Your task to perform on an android device: Open Google Maps Image 0: 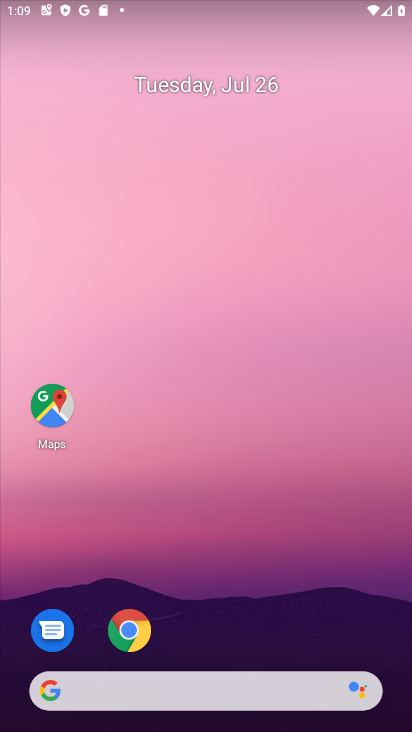
Step 0: drag from (232, 613) to (273, 64)
Your task to perform on an android device: Open Google Maps Image 1: 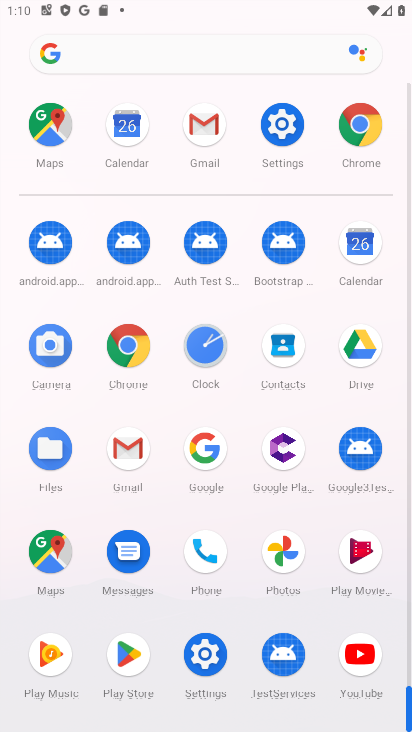
Step 1: click (55, 553)
Your task to perform on an android device: Open Google Maps Image 2: 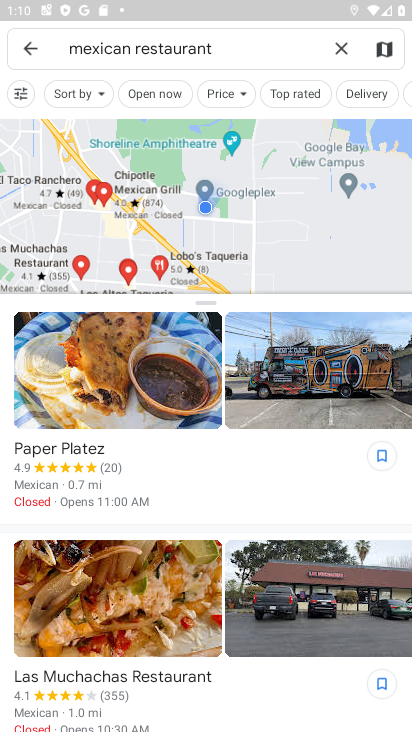
Step 2: task complete